Your task to perform on an android device: Open Youtube and go to "Your channel" Image 0: 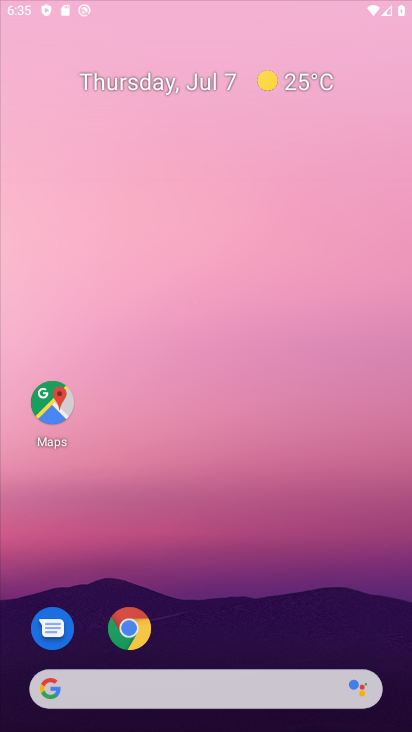
Step 0: press home button
Your task to perform on an android device: Open Youtube and go to "Your channel" Image 1: 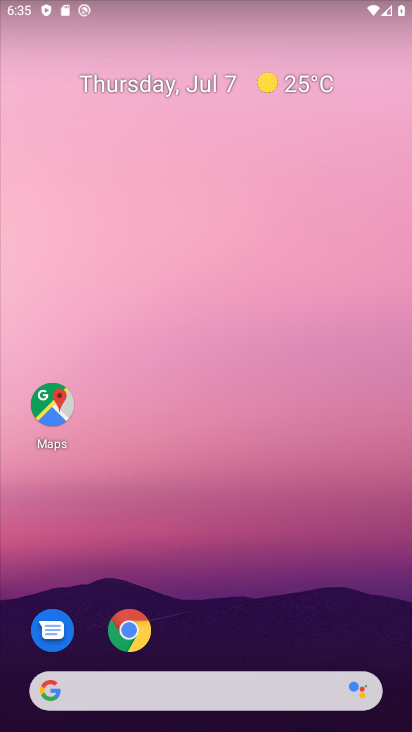
Step 1: drag from (242, 588) to (177, 168)
Your task to perform on an android device: Open Youtube and go to "Your channel" Image 2: 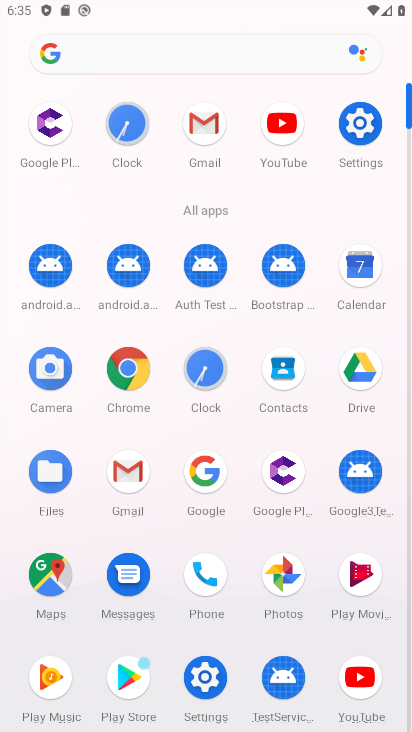
Step 2: click (278, 119)
Your task to perform on an android device: Open Youtube and go to "Your channel" Image 3: 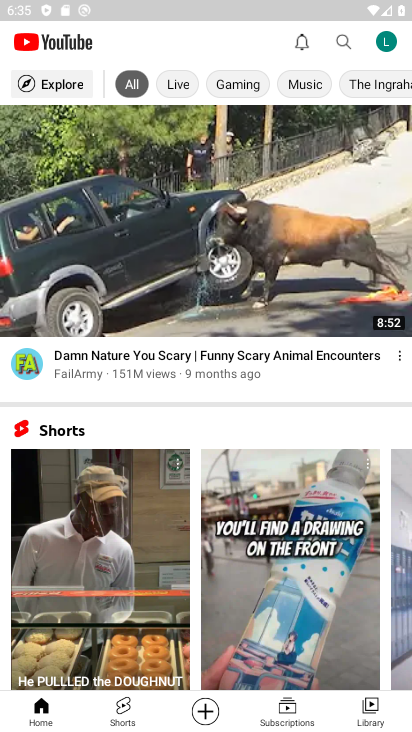
Step 3: click (386, 44)
Your task to perform on an android device: Open Youtube and go to "Your channel" Image 4: 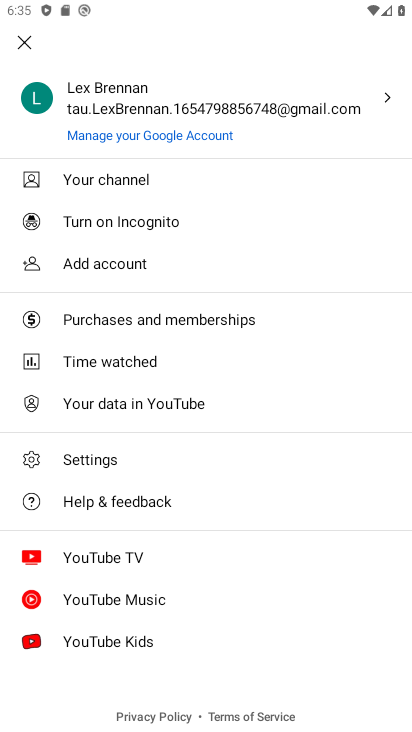
Step 4: click (119, 180)
Your task to perform on an android device: Open Youtube and go to "Your channel" Image 5: 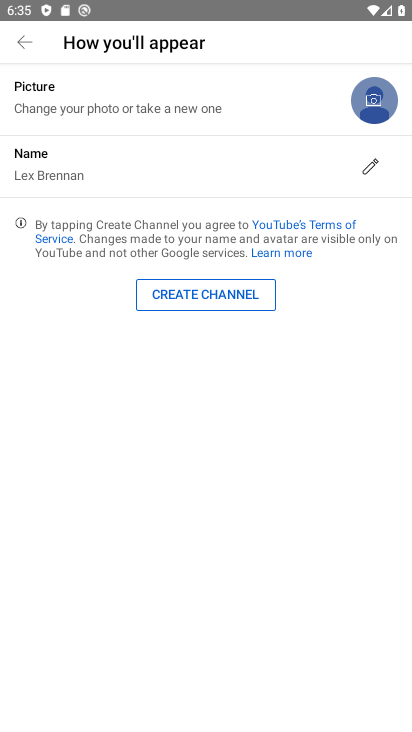
Step 5: task complete